Your task to perform on an android device: make emails show in primary in the gmail app Image 0: 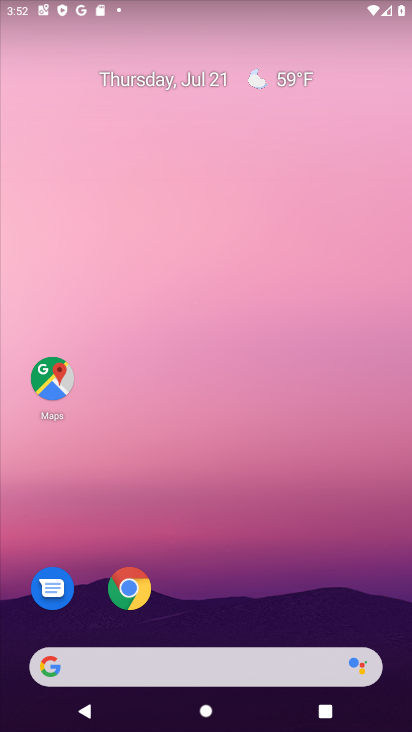
Step 0: drag from (229, 727) to (218, 193)
Your task to perform on an android device: make emails show in primary in the gmail app Image 1: 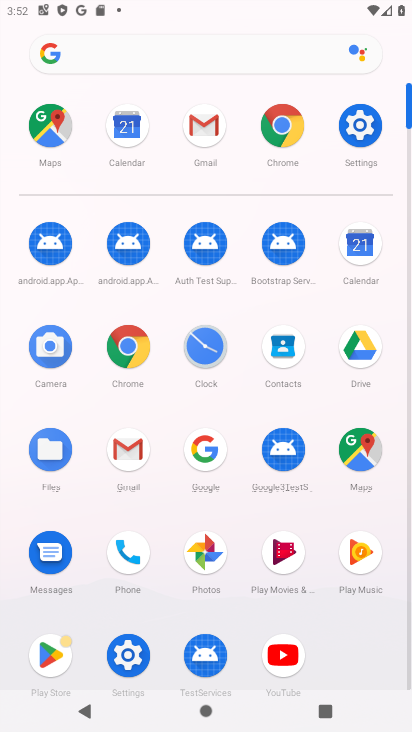
Step 1: click (125, 445)
Your task to perform on an android device: make emails show in primary in the gmail app Image 2: 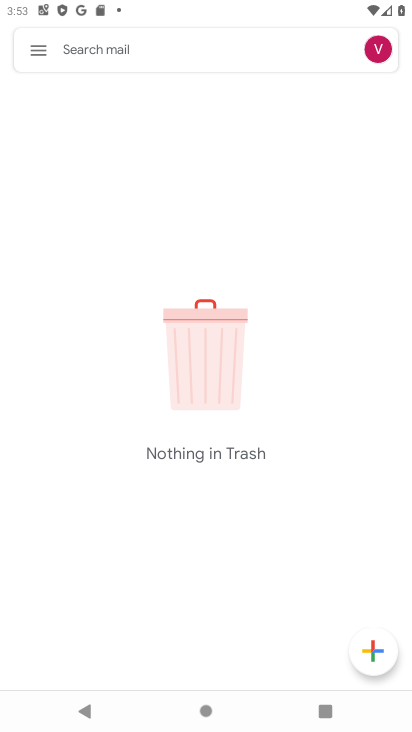
Step 2: click (39, 53)
Your task to perform on an android device: make emails show in primary in the gmail app Image 3: 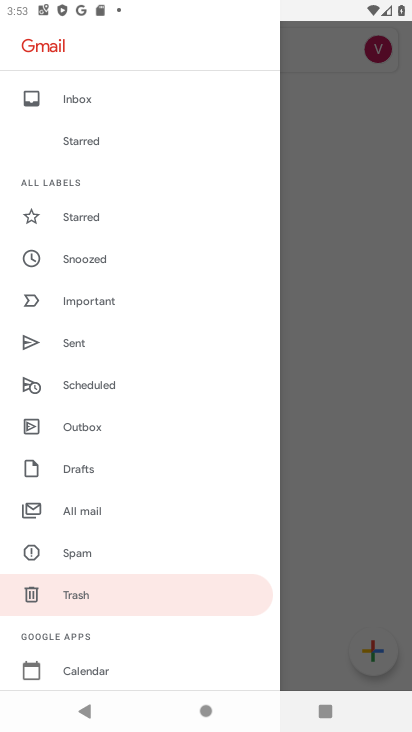
Step 3: drag from (93, 658) to (48, 290)
Your task to perform on an android device: make emails show in primary in the gmail app Image 4: 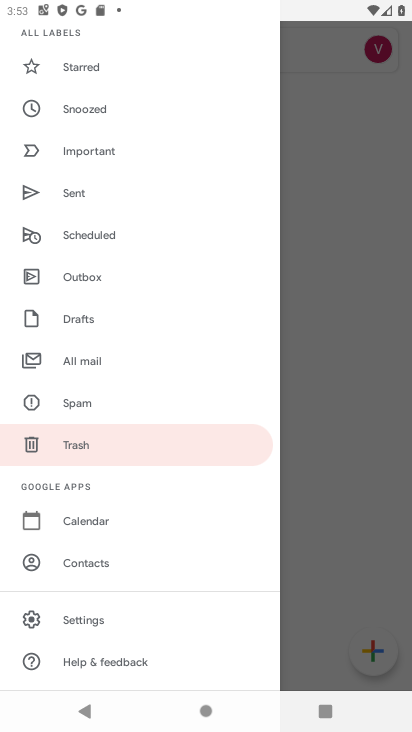
Step 4: click (69, 617)
Your task to perform on an android device: make emails show in primary in the gmail app Image 5: 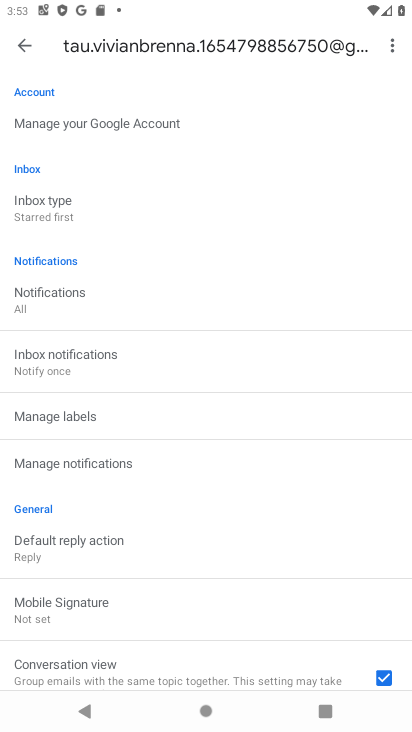
Step 5: click (60, 203)
Your task to perform on an android device: make emails show in primary in the gmail app Image 6: 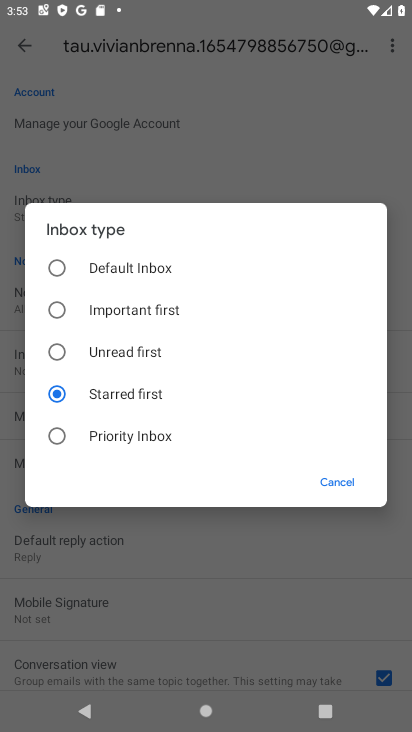
Step 6: click (50, 270)
Your task to perform on an android device: make emails show in primary in the gmail app Image 7: 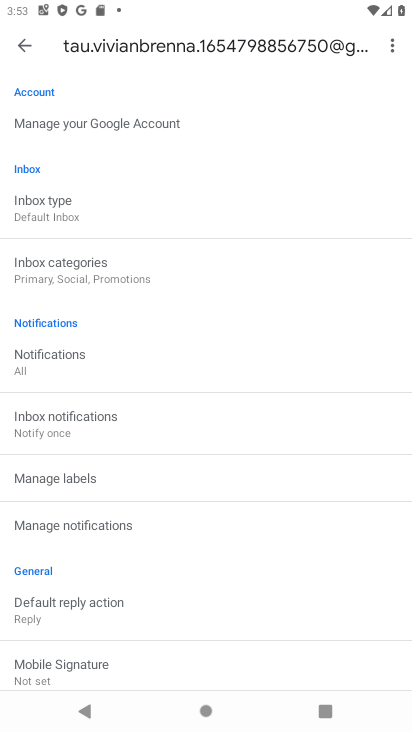
Step 7: click (86, 275)
Your task to perform on an android device: make emails show in primary in the gmail app Image 8: 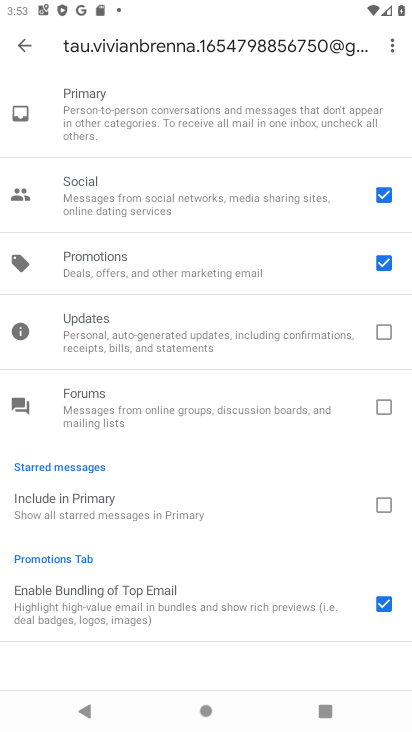
Step 8: click (391, 261)
Your task to perform on an android device: make emails show in primary in the gmail app Image 9: 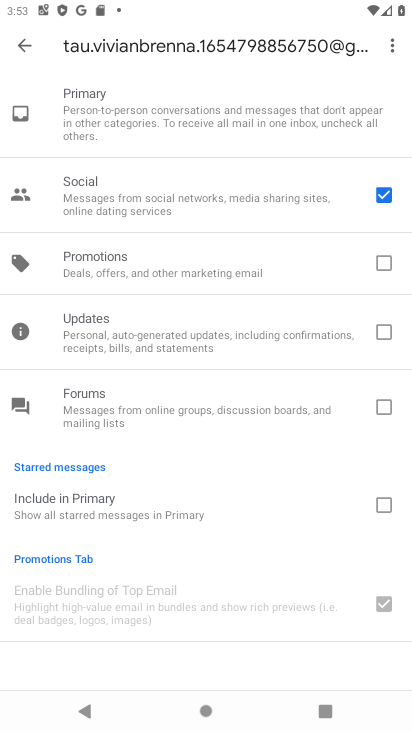
Step 9: click (376, 188)
Your task to perform on an android device: make emails show in primary in the gmail app Image 10: 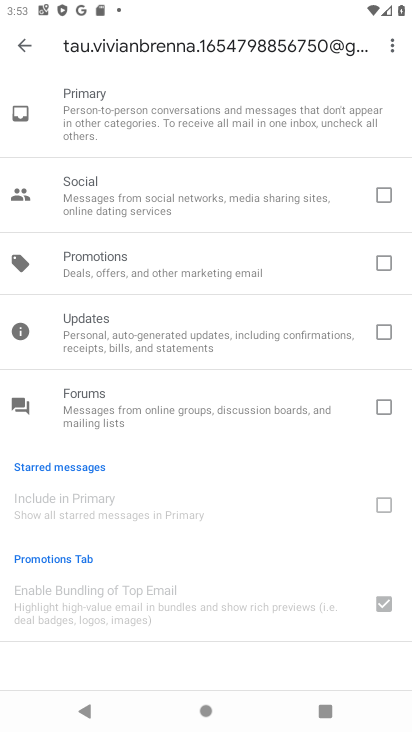
Step 10: click (21, 42)
Your task to perform on an android device: make emails show in primary in the gmail app Image 11: 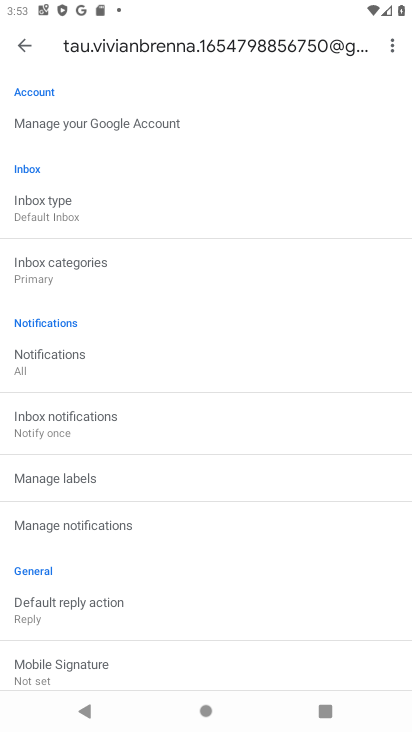
Step 11: task complete